Your task to perform on an android device: Open settings Image 0: 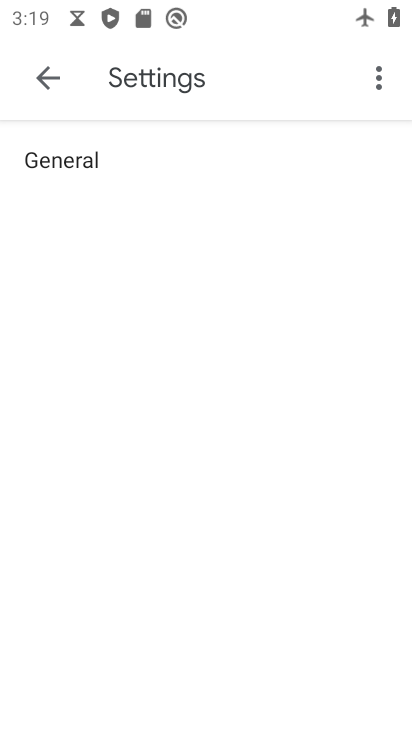
Step 0: press back button
Your task to perform on an android device: Open settings Image 1: 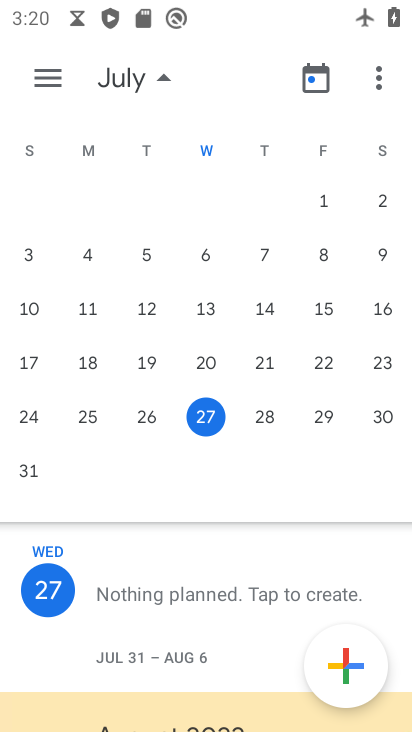
Step 1: press back button
Your task to perform on an android device: Open settings Image 2: 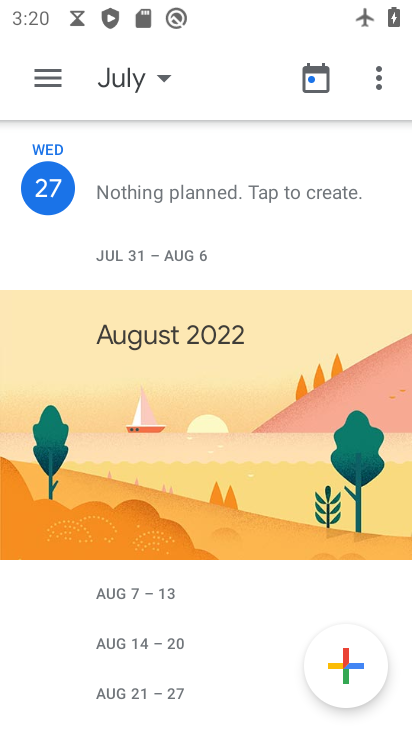
Step 2: press back button
Your task to perform on an android device: Open settings Image 3: 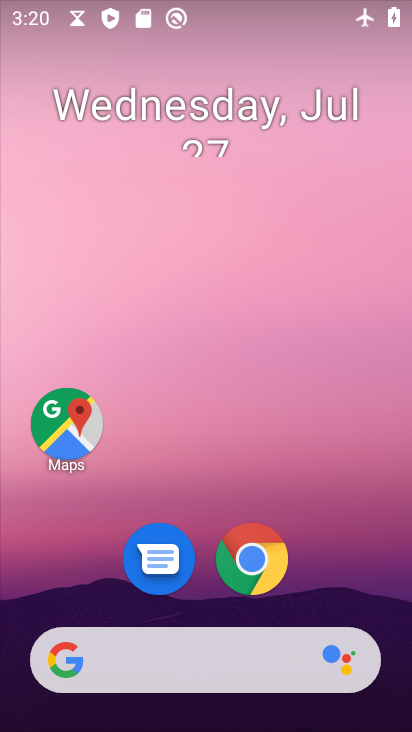
Step 3: drag from (52, 575) to (253, 24)
Your task to perform on an android device: Open settings Image 4: 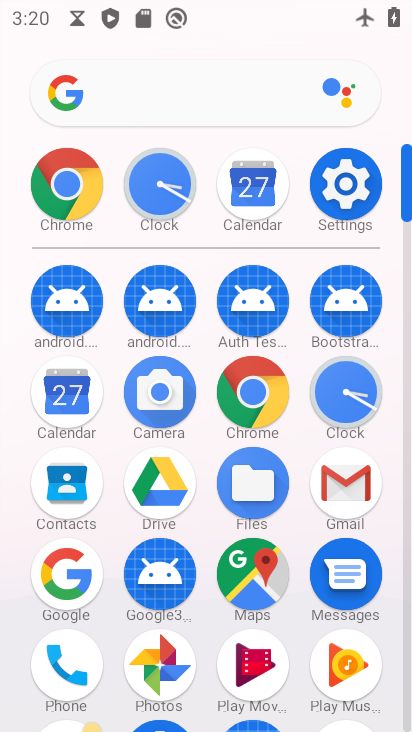
Step 4: click (339, 172)
Your task to perform on an android device: Open settings Image 5: 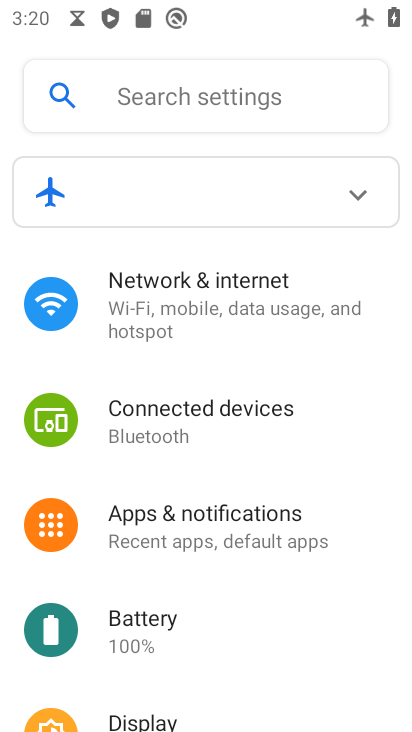
Step 5: task complete